Your task to perform on an android device: clear history in the chrome app Image 0: 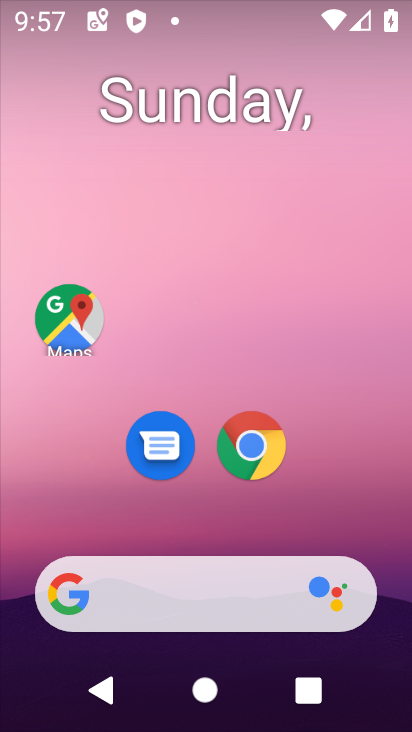
Step 0: press home button
Your task to perform on an android device: clear history in the chrome app Image 1: 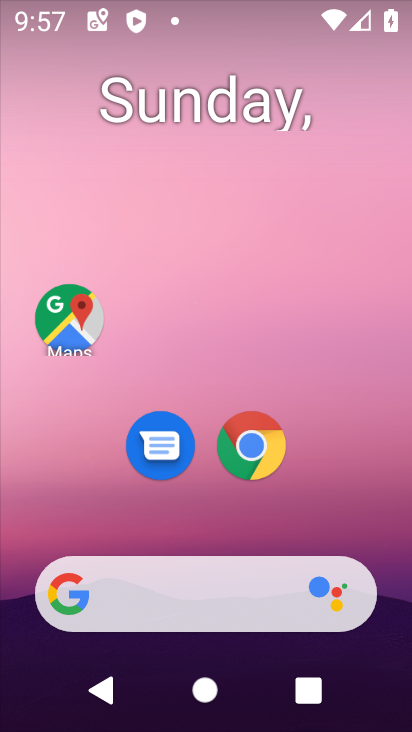
Step 1: click (259, 444)
Your task to perform on an android device: clear history in the chrome app Image 2: 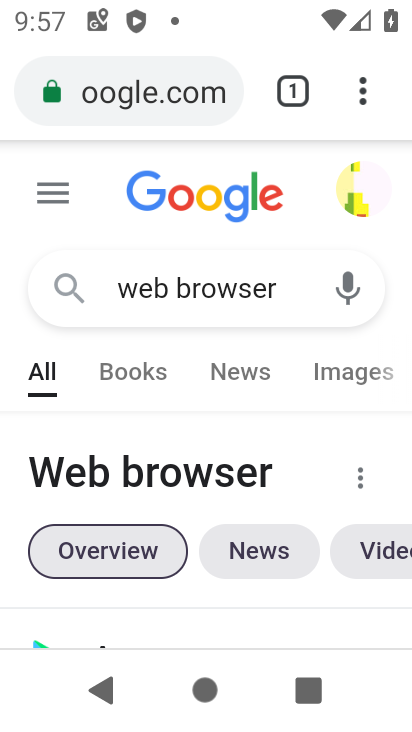
Step 2: drag from (363, 102) to (122, 420)
Your task to perform on an android device: clear history in the chrome app Image 3: 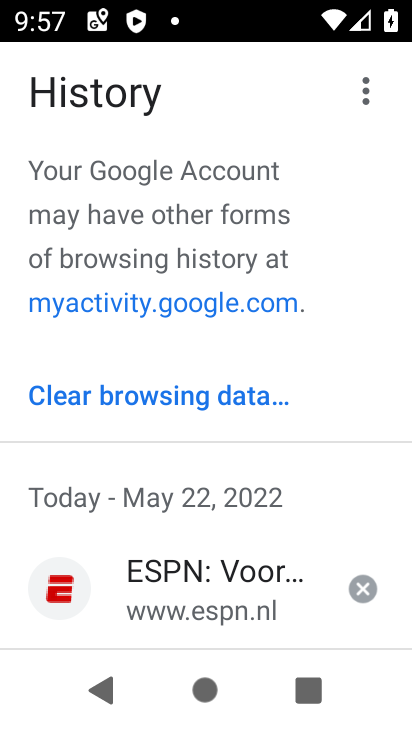
Step 3: click (370, 585)
Your task to perform on an android device: clear history in the chrome app Image 4: 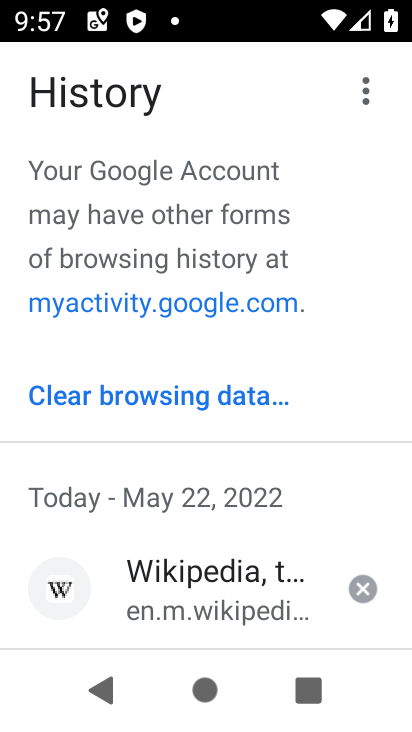
Step 4: click (367, 586)
Your task to perform on an android device: clear history in the chrome app Image 5: 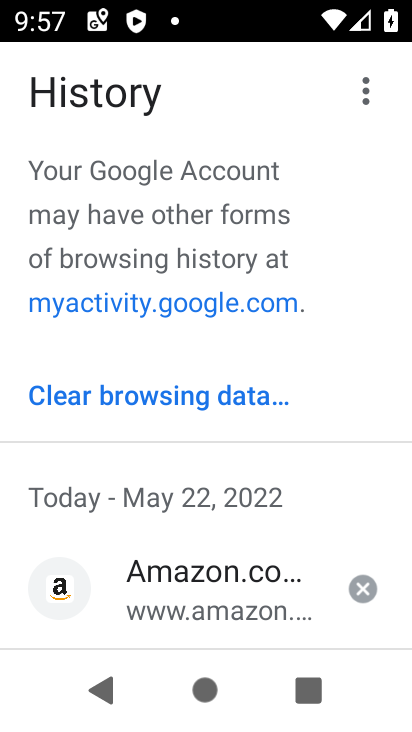
Step 5: click (239, 394)
Your task to perform on an android device: clear history in the chrome app Image 6: 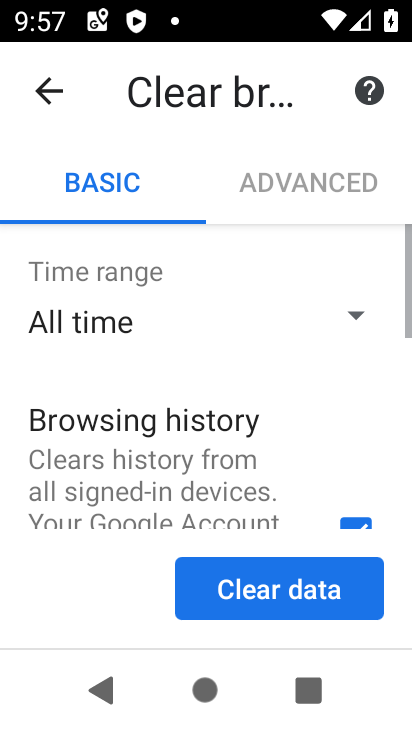
Step 6: click (250, 580)
Your task to perform on an android device: clear history in the chrome app Image 7: 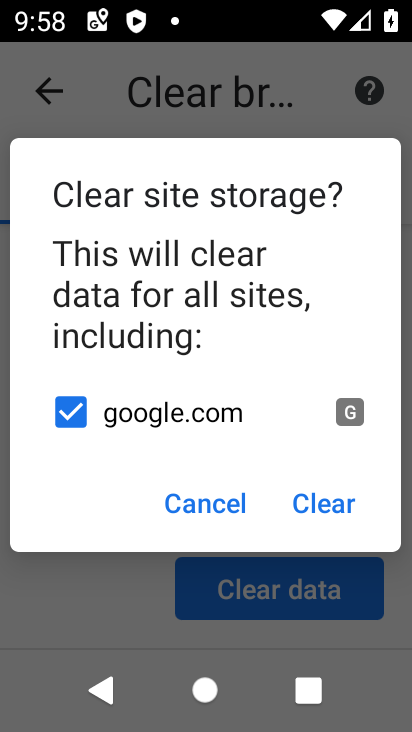
Step 7: click (301, 501)
Your task to perform on an android device: clear history in the chrome app Image 8: 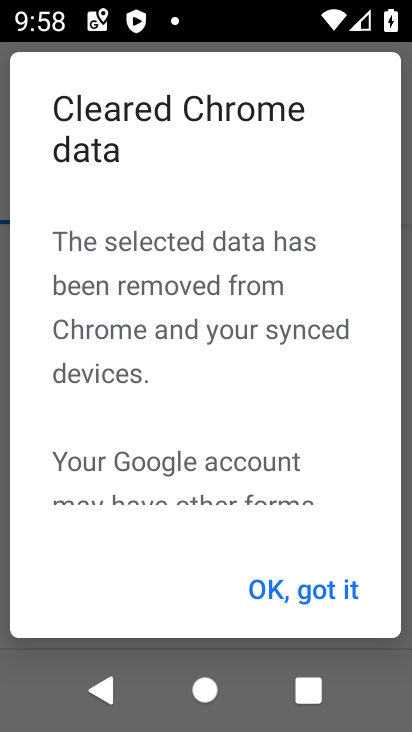
Step 8: click (305, 587)
Your task to perform on an android device: clear history in the chrome app Image 9: 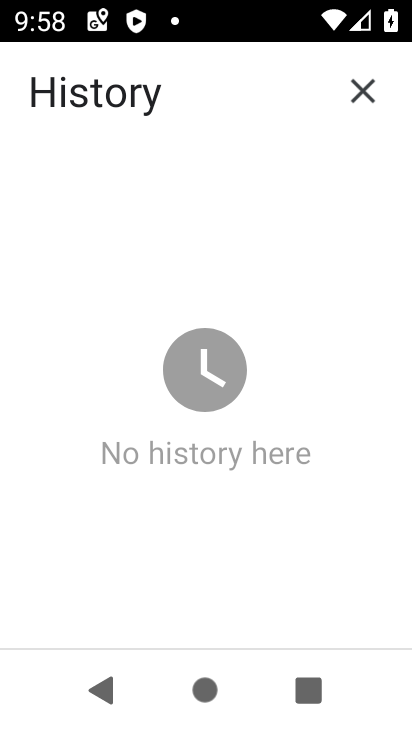
Step 9: task complete